Your task to perform on an android device: Open eBay Image 0: 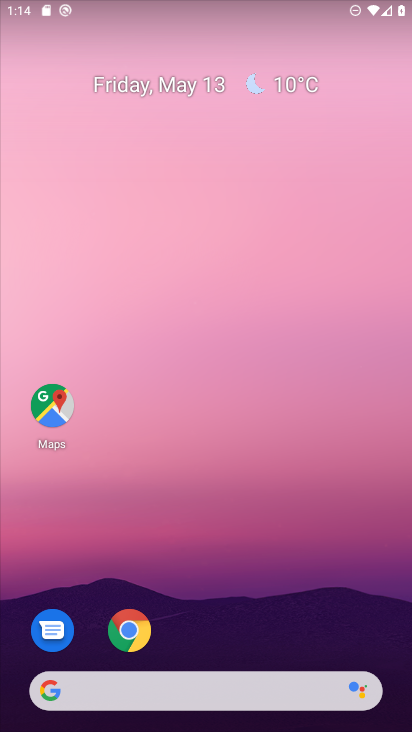
Step 0: click (122, 628)
Your task to perform on an android device: Open eBay Image 1: 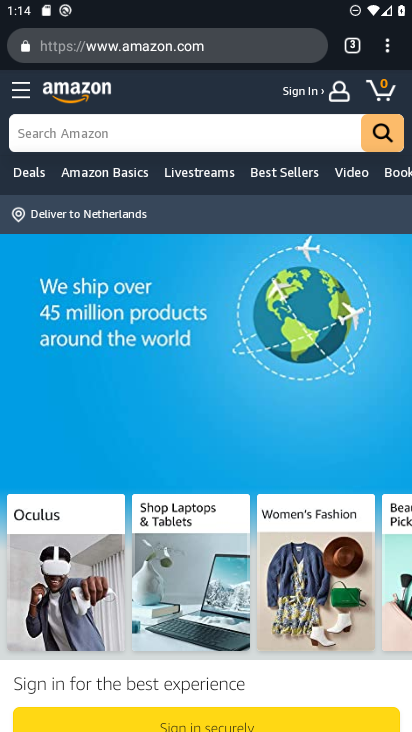
Step 1: click (147, 42)
Your task to perform on an android device: Open eBay Image 2: 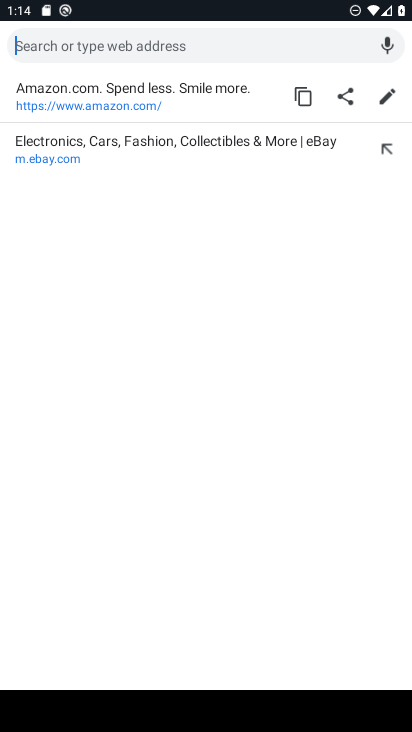
Step 2: click (76, 150)
Your task to perform on an android device: Open eBay Image 3: 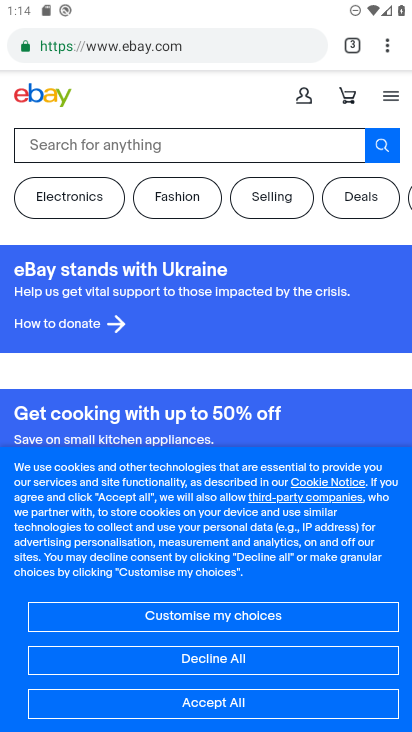
Step 3: task complete